Your task to perform on an android device: turn smart compose on in the gmail app Image 0: 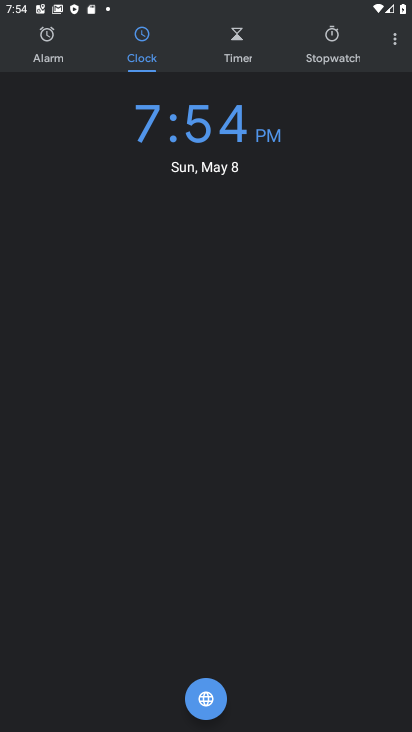
Step 0: drag from (243, 610) to (276, 242)
Your task to perform on an android device: turn smart compose on in the gmail app Image 1: 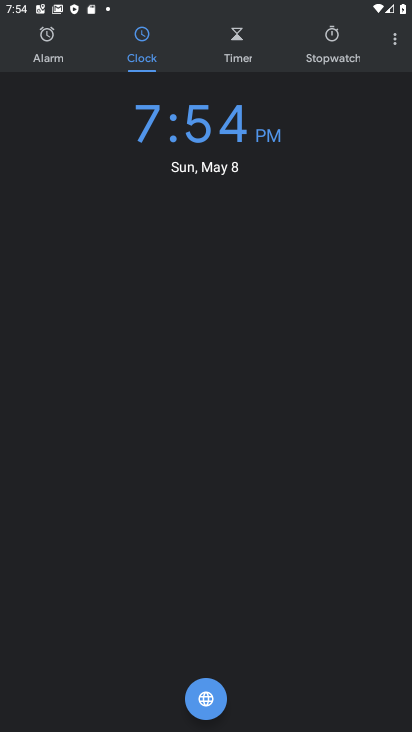
Step 1: press home button
Your task to perform on an android device: turn smart compose on in the gmail app Image 2: 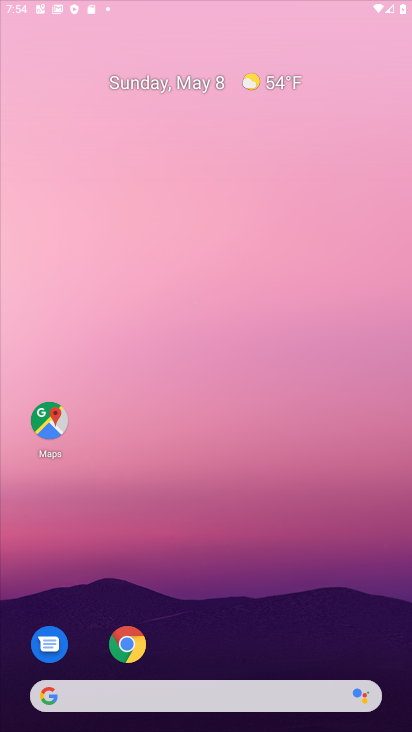
Step 2: drag from (208, 581) to (315, 74)
Your task to perform on an android device: turn smart compose on in the gmail app Image 3: 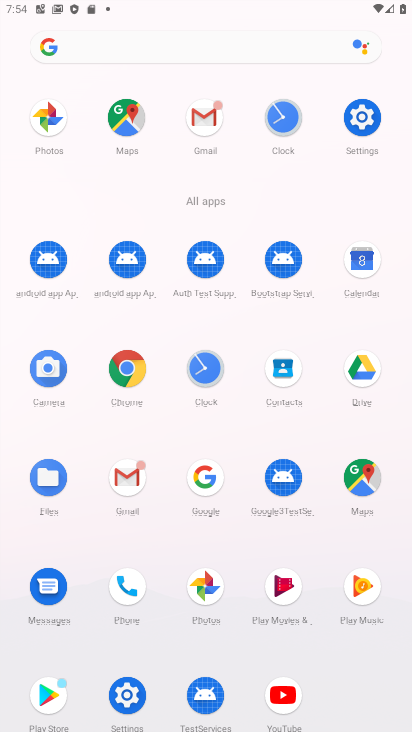
Step 3: drag from (202, 643) to (279, 231)
Your task to perform on an android device: turn smart compose on in the gmail app Image 4: 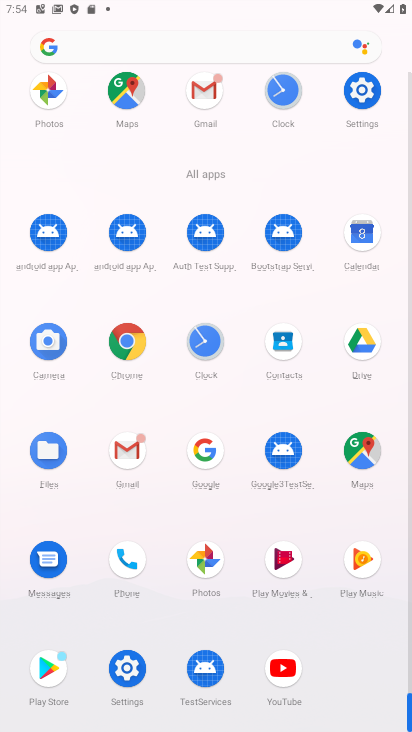
Step 4: click (125, 448)
Your task to perform on an android device: turn smart compose on in the gmail app Image 5: 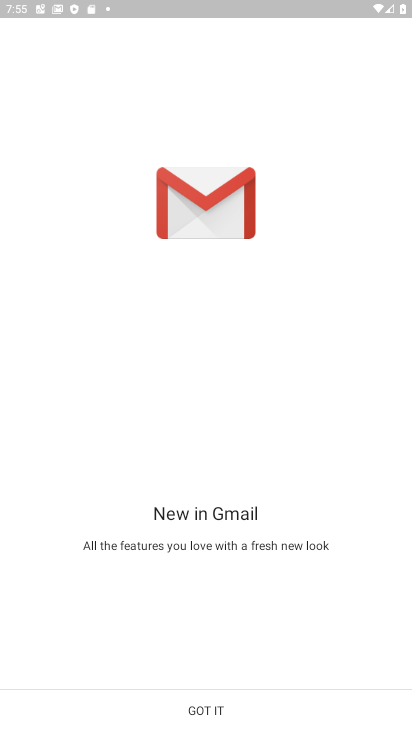
Step 5: click (200, 710)
Your task to perform on an android device: turn smart compose on in the gmail app Image 6: 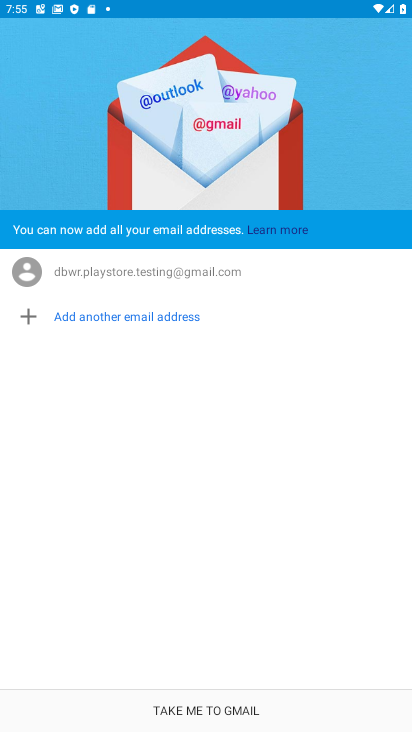
Step 6: click (180, 705)
Your task to perform on an android device: turn smart compose on in the gmail app Image 7: 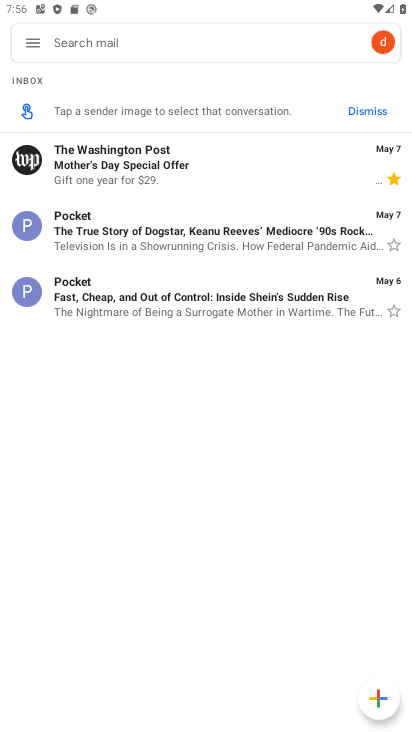
Step 7: drag from (176, 549) to (264, 107)
Your task to perform on an android device: turn smart compose on in the gmail app Image 8: 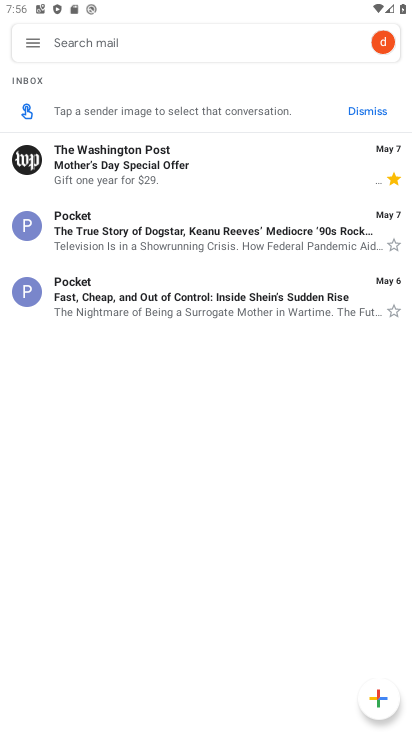
Step 8: click (34, 47)
Your task to perform on an android device: turn smart compose on in the gmail app Image 9: 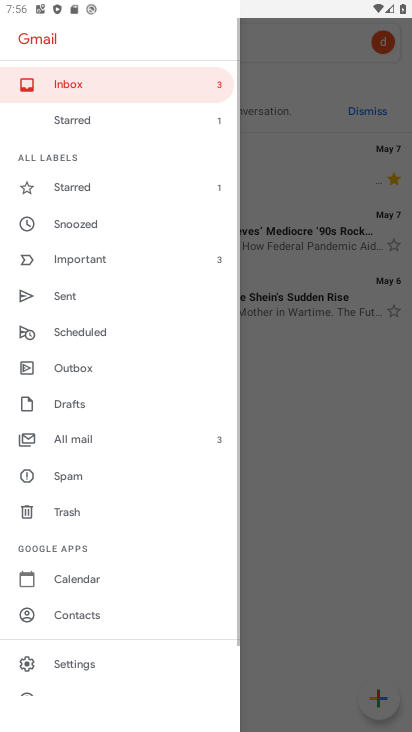
Step 9: drag from (75, 541) to (219, 60)
Your task to perform on an android device: turn smart compose on in the gmail app Image 10: 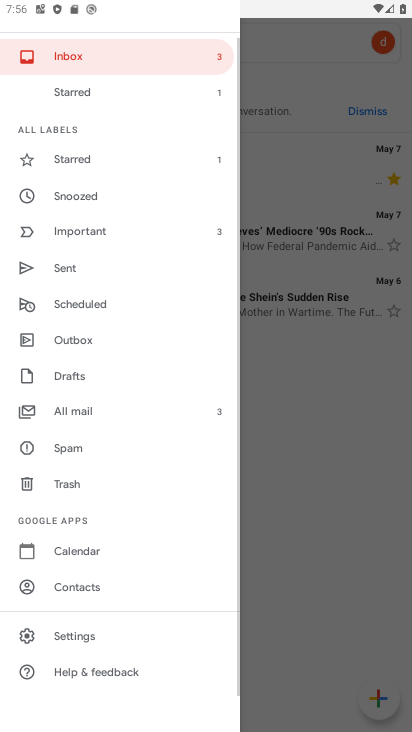
Step 10: click (55, 627)
Your task to perform on an android device: turn smart compose on in the gmail app Image 11: 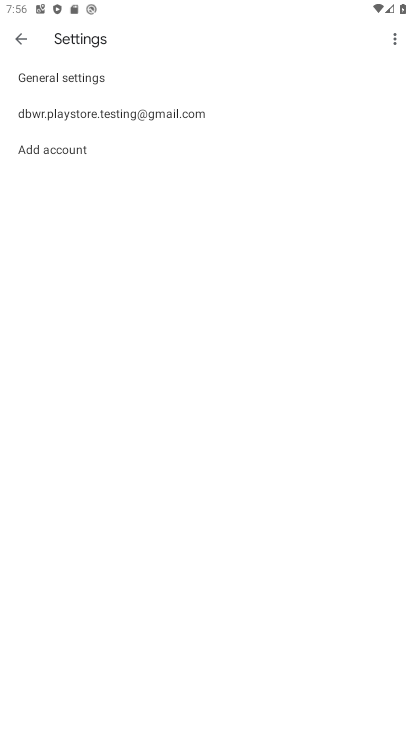
Step 11: click (113, 112)
Your task to perform on an android device: turn smart compose on in the gmail app Image 12: 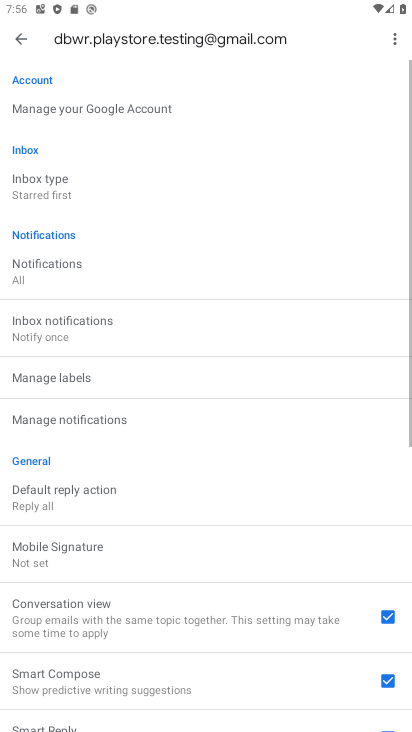
Step 12: task complete